Your task to perform on an android device: change the clock display to digital Image 0: 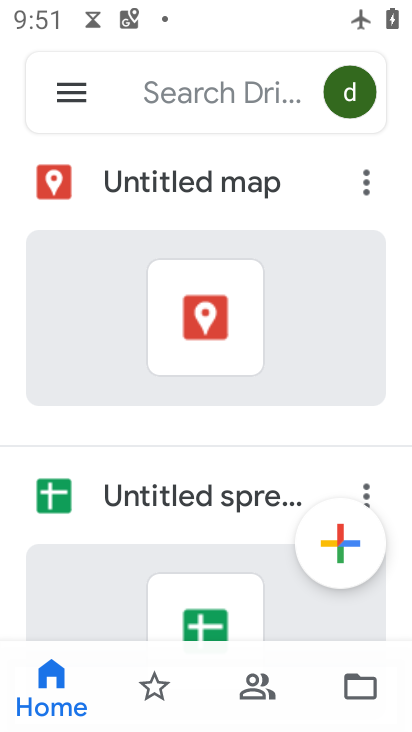
Step 0: press home button
Your task to perform on an android device: change the clock display to digital Image 1: 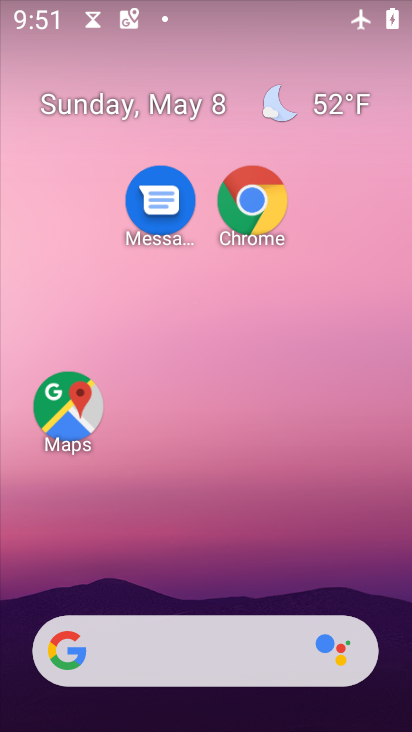
Step 1: drag from (196, 613) to (120, 0)
Your task to perform on an android device: change the clock display to digital Image 2: 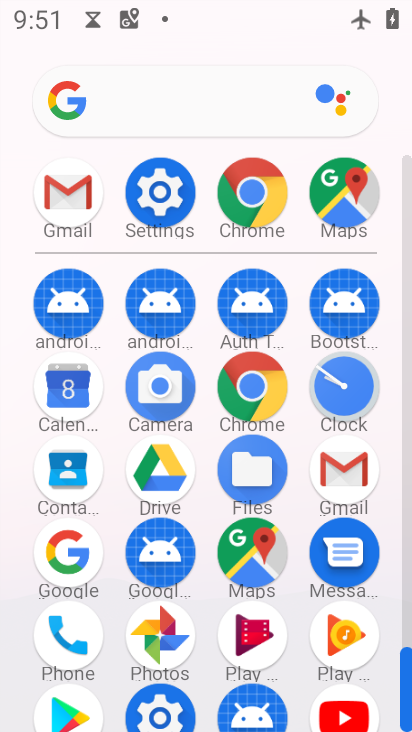
Step 2: click (344, 398)
Your task to perform on an android device: change the clock display to digital Image 3: 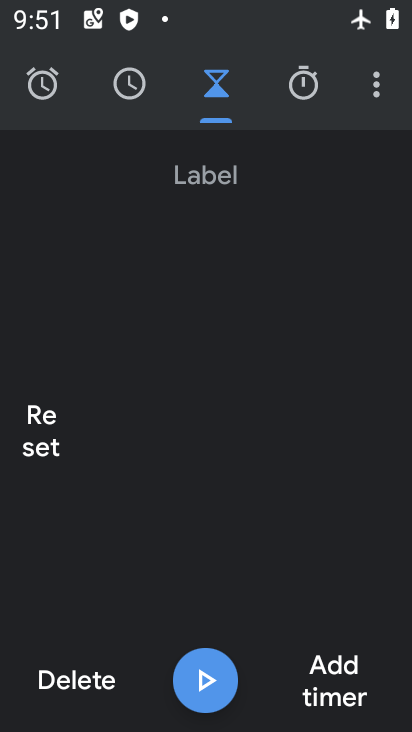
Step 3: click (376, 100)
Your task to perform on an android device: change the clock display to digital Image 4: 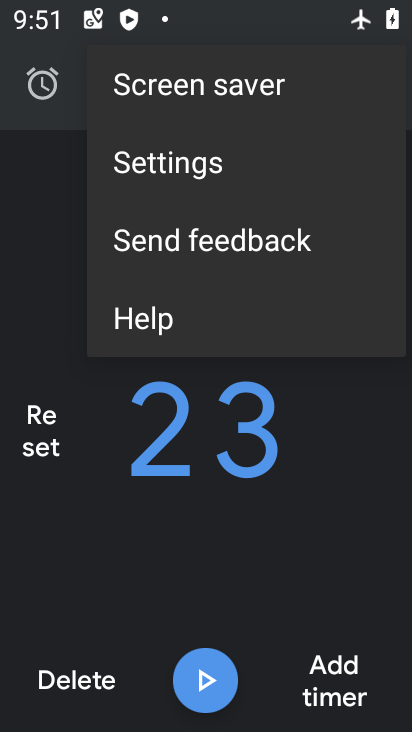
Step 4: click (181, 170)
Your task to perform on an android device: change the clock display to digital Image 5: 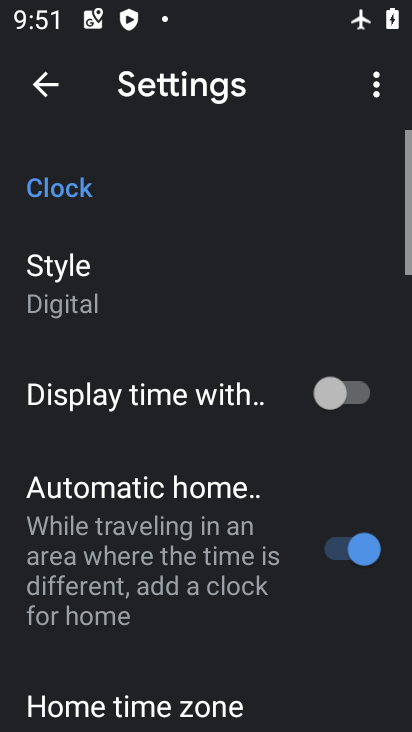
Step 5: click (126, 301)
Your task to perform on an android device: change the clock display to digital Image 6: 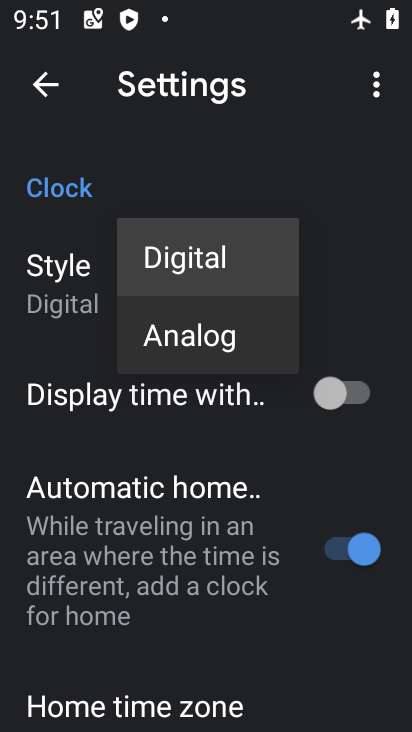
Step 6: click (190, 273)
Your task to perform on an android device: change the clock display to digital Image 7: 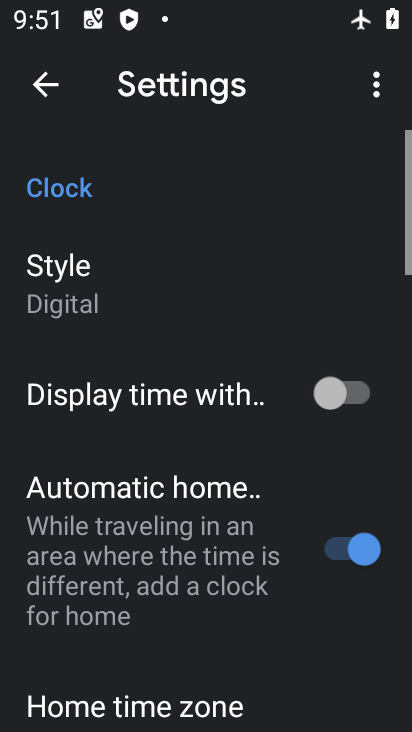
Step 7: task complete